Your task to perform on an android device: allow cookies in the chrome app Image 0: 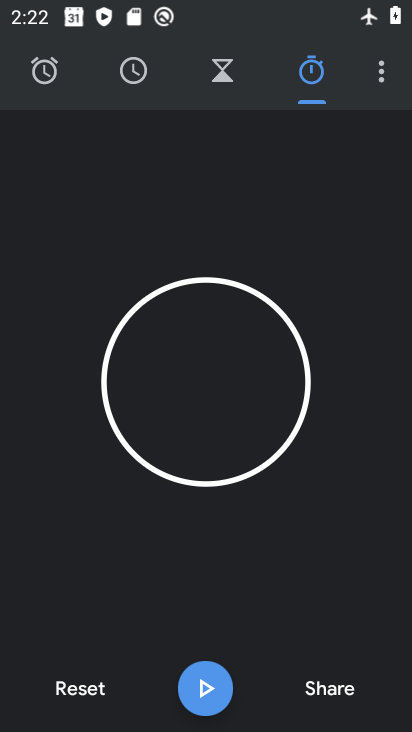
Step 0: press home button
Your task to perform on an android device: allow cookies in the chrome app Image 1: 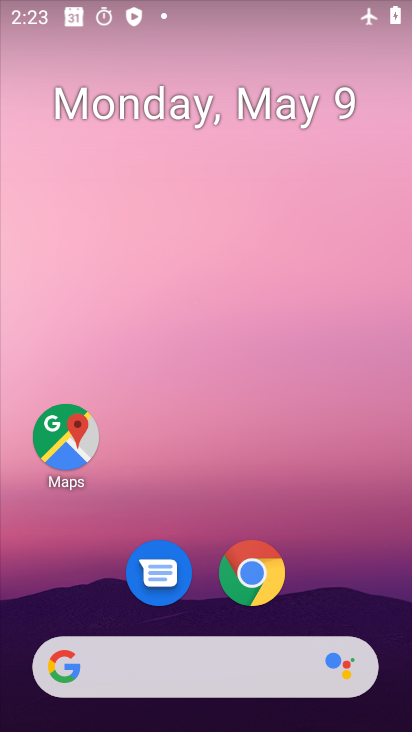
Step 1: click (249, 172)
Your task to perform on an android device: allow cookies in the chrome app Image 2: 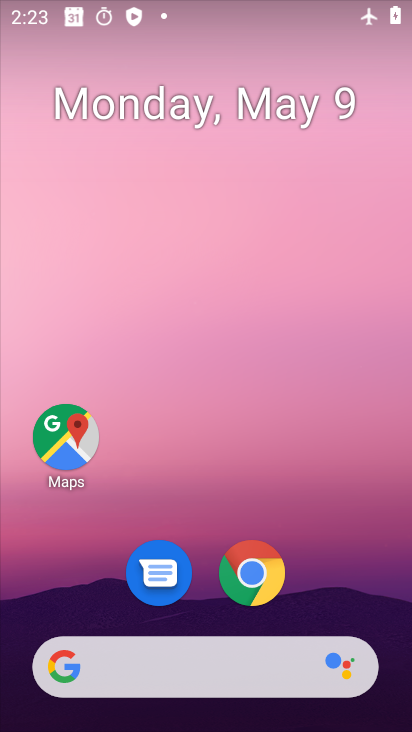
Step 2: click (263, 556)
Your task to perform on an android device: allow cookies in the chrome app Image 3: 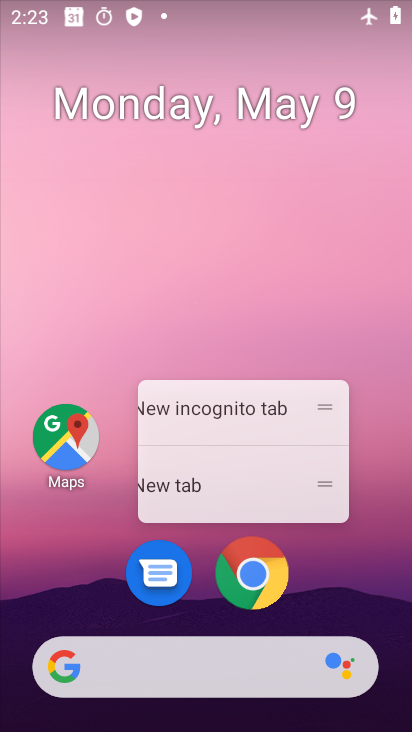
Step 3: click (257, 561)
Your task to perform on an android device: allow cookies in the chrome app Image 4: 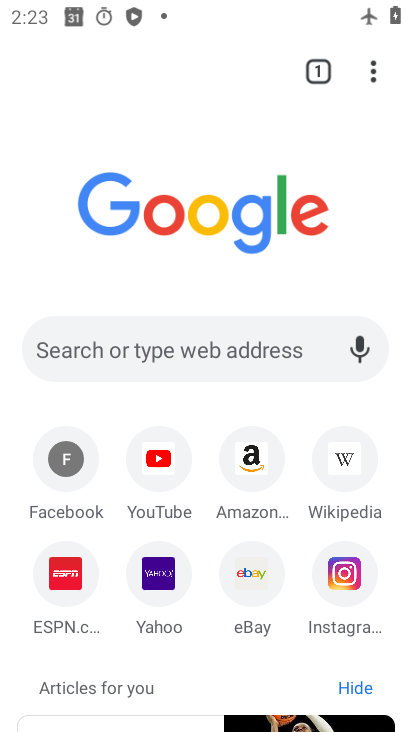
Step 4: click (367, 70)
Your task to perform on an android device: allow cookies in the chrome app Image 5: 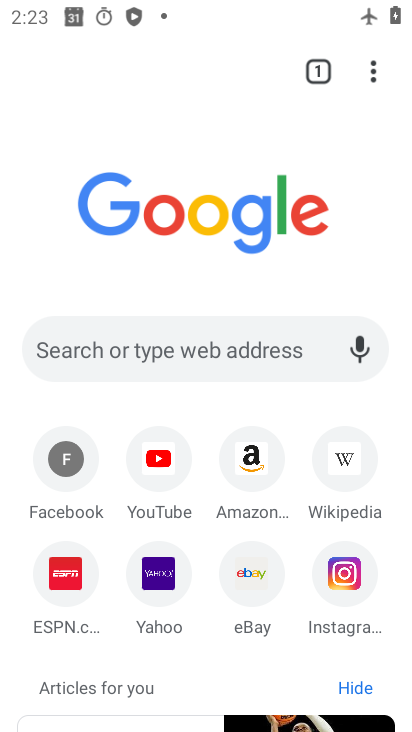
Step 5: click (367, 70)
Your task to perform on an android device: allow cookies in the chrome app Image 6: 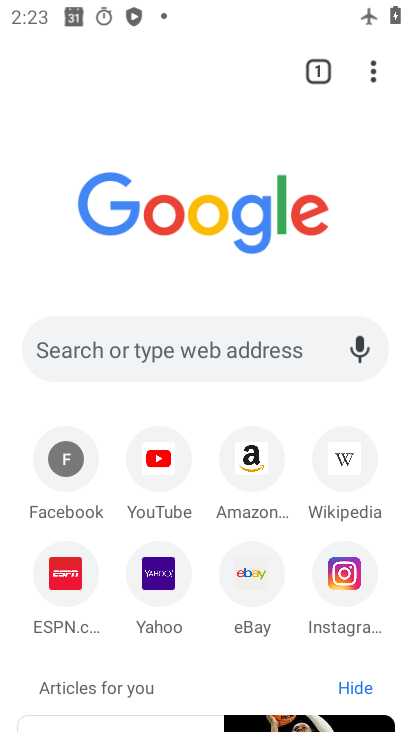
Step 6: drag from (367, 70) to (119, 602)
Your task to perform on an android device: allow cookies in the chrome app Image 7: 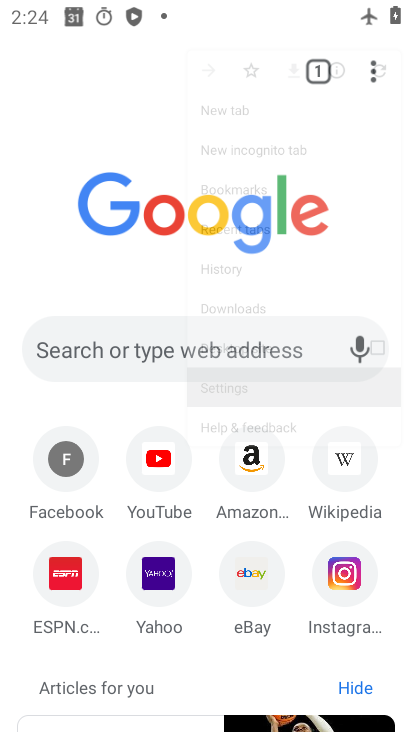
Step 7: click (113, 602)
Your task to perform on an android device: allow cookies in the chrome app Image 8: 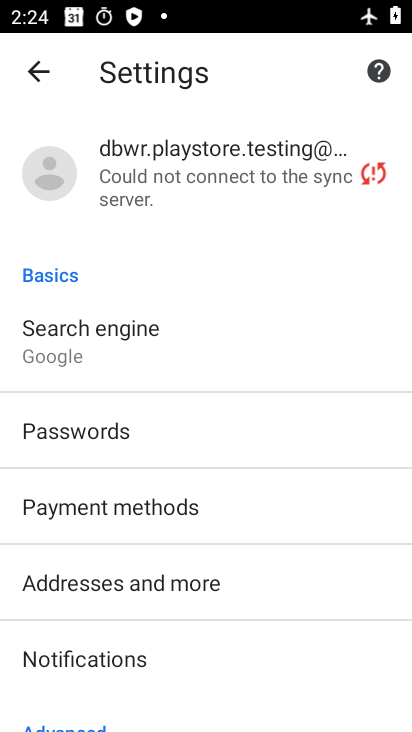
Step 8: drag from (190, 563) to (123, 69)
Your task to perform on an android device: allow cookies in the chrome app Image 9: 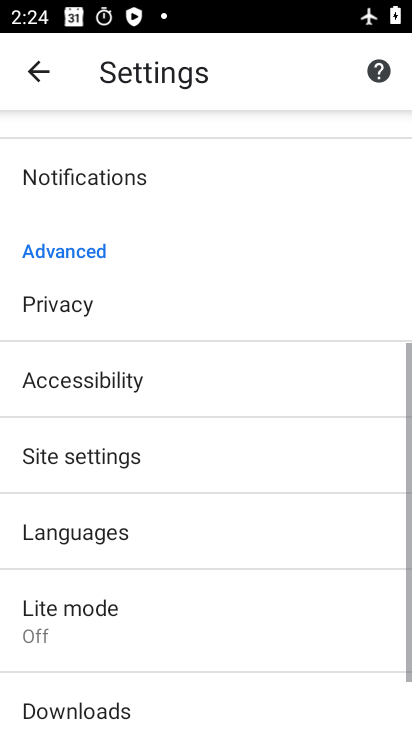
Step 9: drag from (187, 171) to (171, 61)
Your task to perform on an android device: allow cookies in the chrome app Image 10: 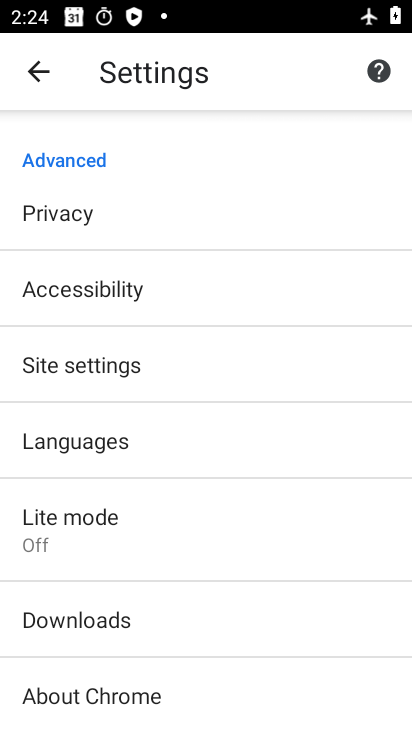
Step 10: click (46, 363)
Your task to perform on an android device: allow cookies in the chrome app Image 11: 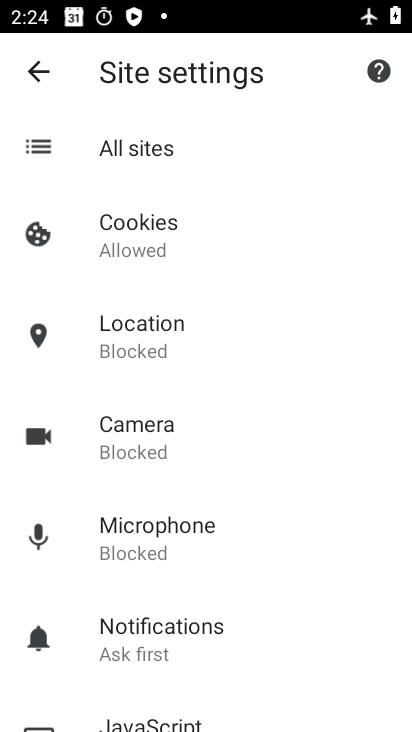
Step 11: click (119, 220)
Your task to perform on an android device: allow cookies in the chrome app Image 12: 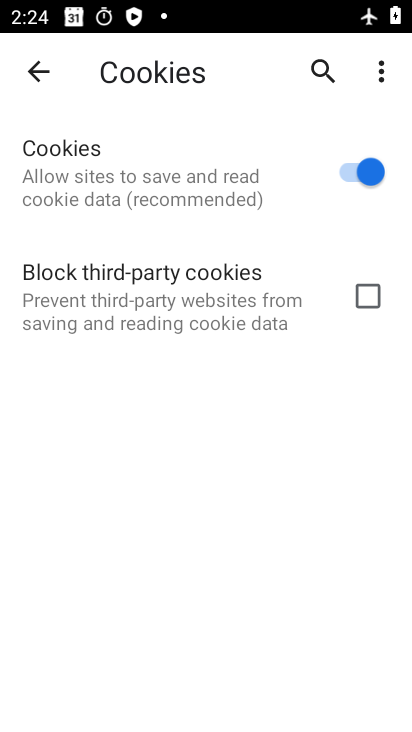
Step 12: task complete